Your task to perform on an android device: Toggle the flashlight Image 0: 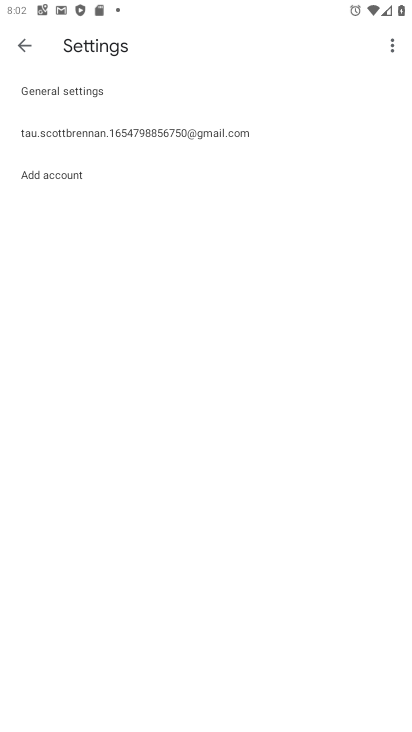
Step 0: press home button
Your task to perform on an android device: Toggle the flashlight Image 1: 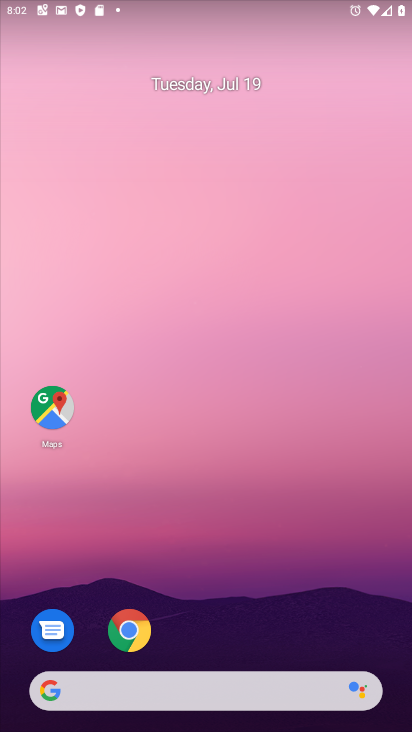
Step 1: drag from (183, 638) to (171, 139)
Your task to perform on an android device: Toggle the flashlight Image 2: 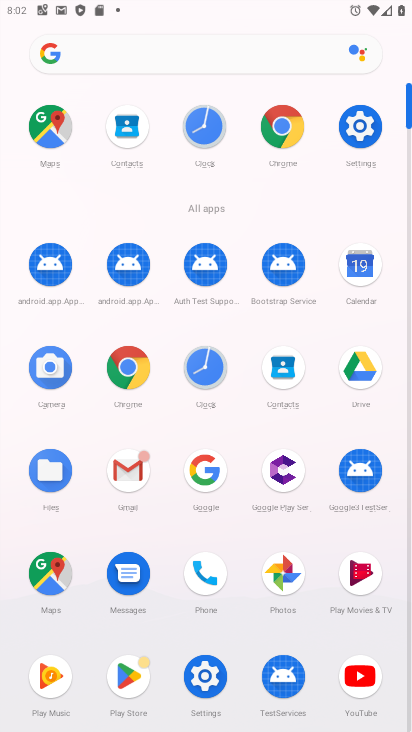
Step 2: click (356, 120)
Your task to perform on an android device: Toggle the flashlight Image 3: 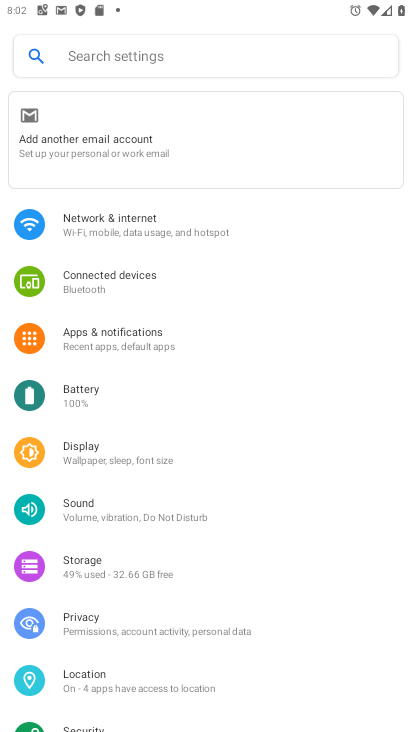
Step 3: task complete